Your task to perform on an android device: Open CNN.com Image 0: 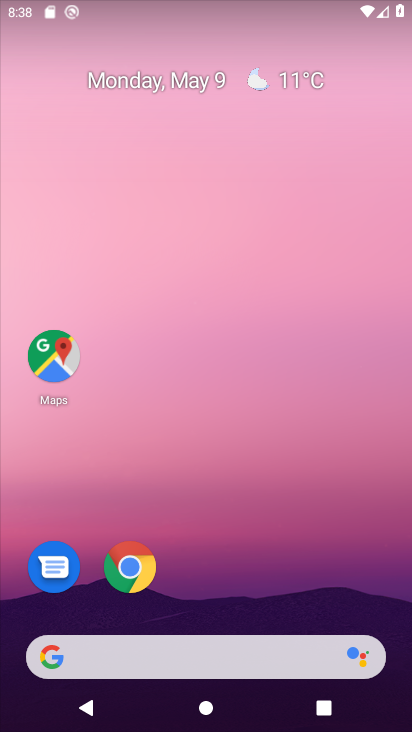
Step 0: click (243, 668)
Your task to perform on an android device: Open CNN.com Image 1: 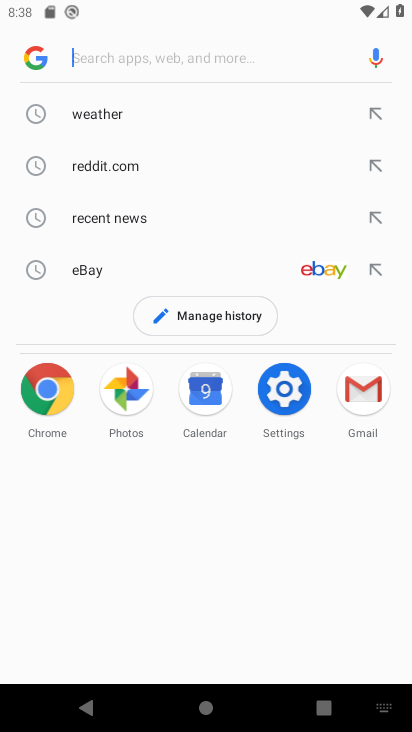
Step 1: type "cnn.com"
Your task to perform on an android device: Open CNN.com Image 2: 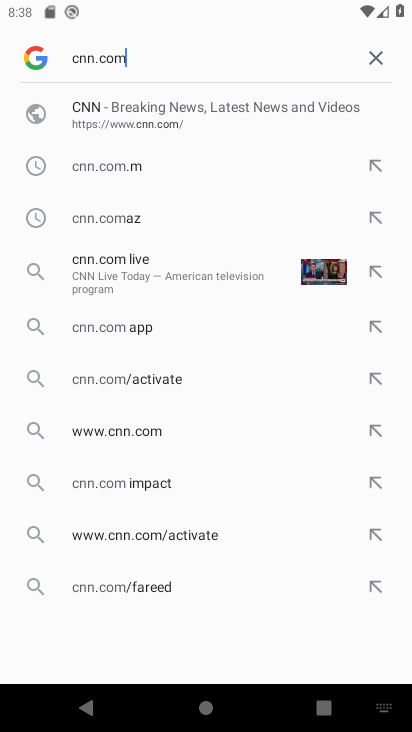
Step 2: click (92, 108)
Your task to perform on an android device: Open CNN.com Image 3: 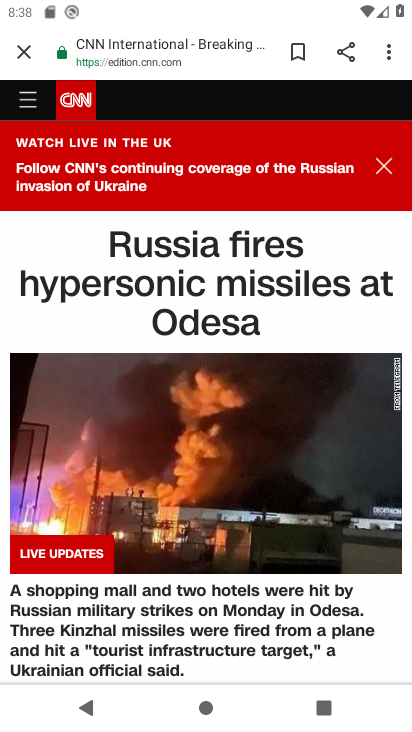
Step 3: task complete